Your task to perform on an android device: turn vacation reply on in the gmail app Image 0: 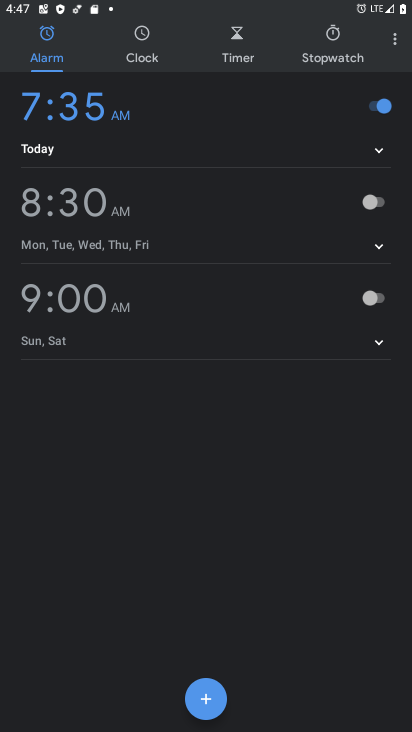
Step 0: press home button
Your task to perform on an android device: turn vacation reply on in the gmail app Image 1: 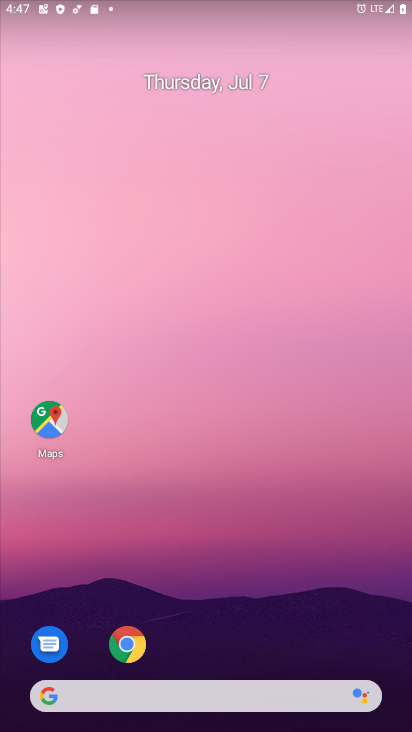
Step 1: drag from (234, 654) to (223, 72)
Your task to perform on an android device: turn vacation reply on in the gmail app Image 2: 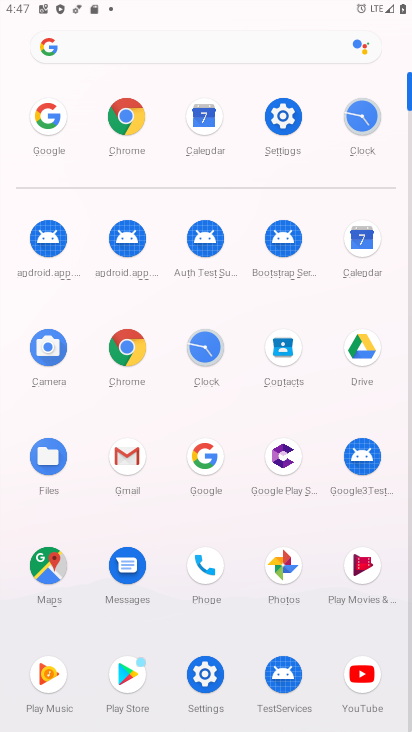
Step 2: click (124, 452)
Your task to perform on an android device: turn vacation reply on in the gmail app Image 3: 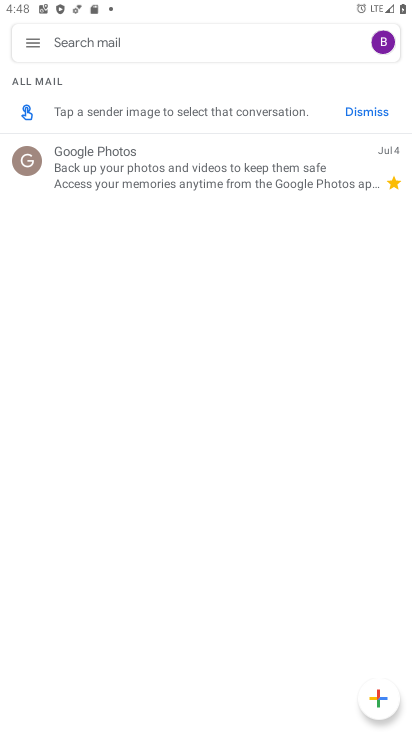
Step 3: click (33, 43)
Your task to perform on an android device: turn vacation reply on in the gmail app Image 4: 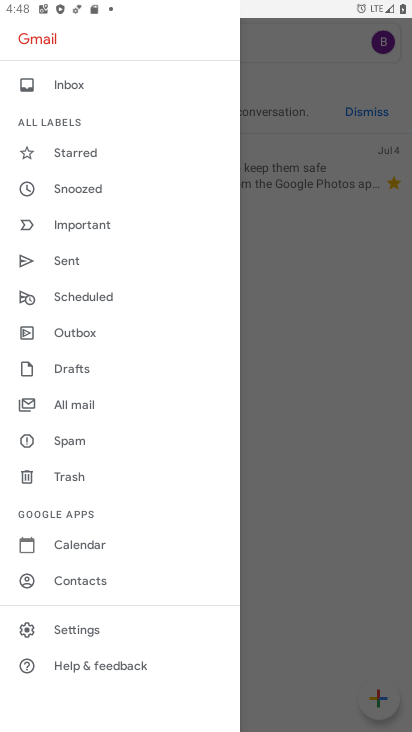
Step 4: click (81, 627)
Your task to perform on an android device: turn vacation reply on in the gmail app Image 5: 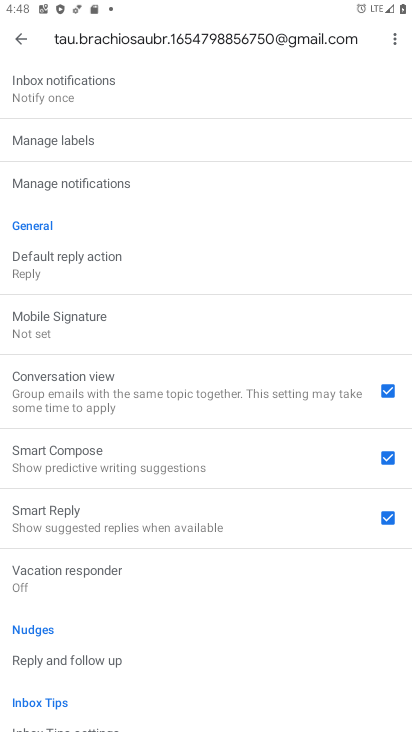
Step 5: click (65, 582)
Your task to perform on an android device: turn vacation reply on in the gmail app Image 6: 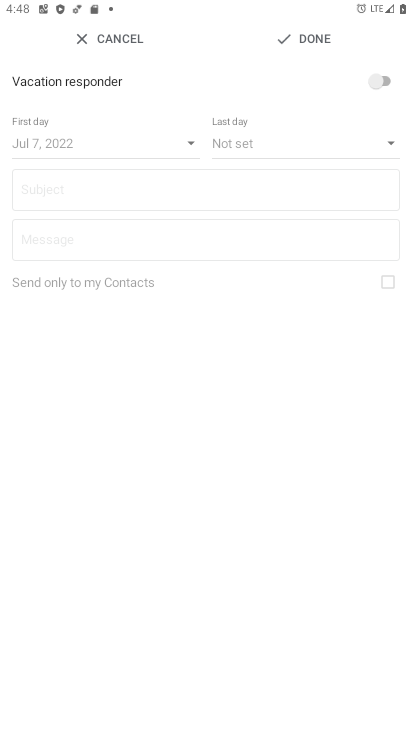
Step 6: click (376, 81)
Your task to perform on an android device: turn vacation reply on in the gmail app Image 7: 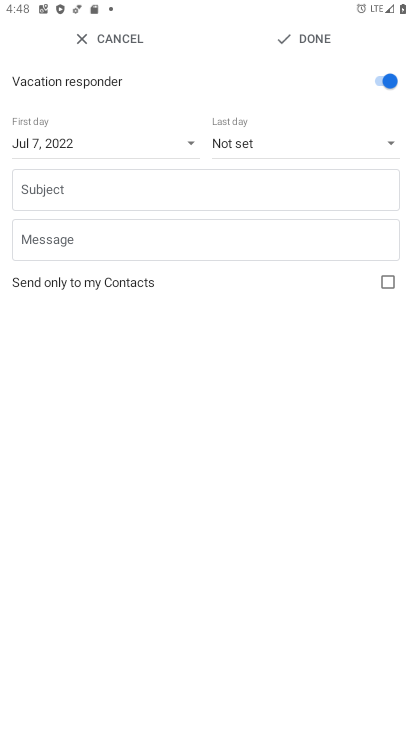
Step 7: task complete